Your task to perform on an android device: check android version Image 0: 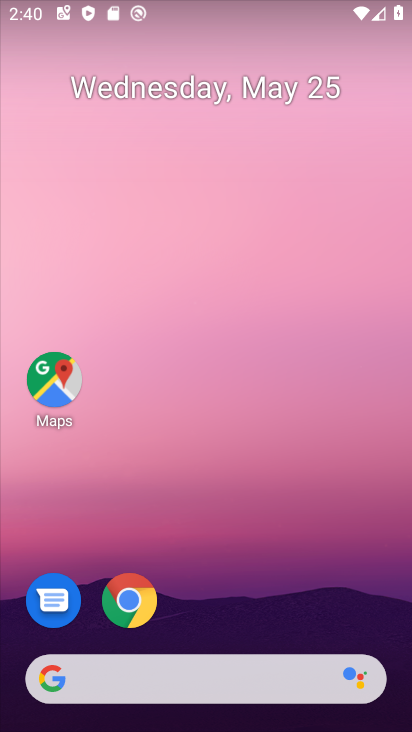
Step 0: press home button
Your task to perform on an android device: check android version Image 1: 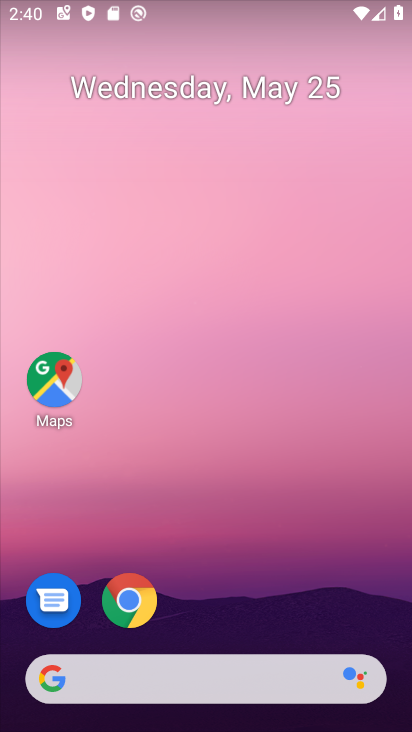
Step 1: drag from (26, 531) to (202, 107)
Your task to perform on an android device: check android version Image 2: 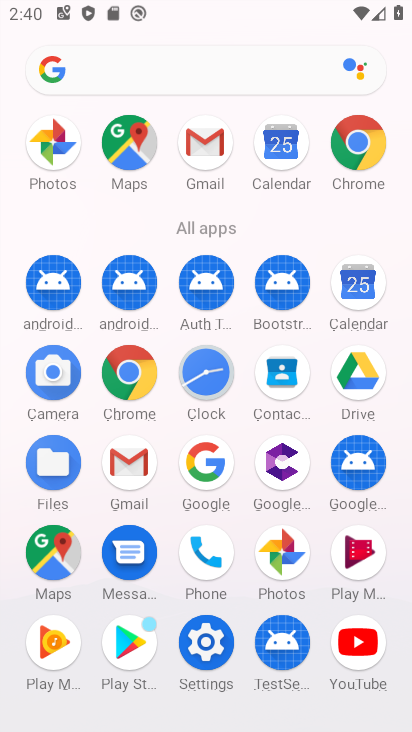
Step 2: click (205, 636)
Your task to perform on an android device: check android version Image 3: 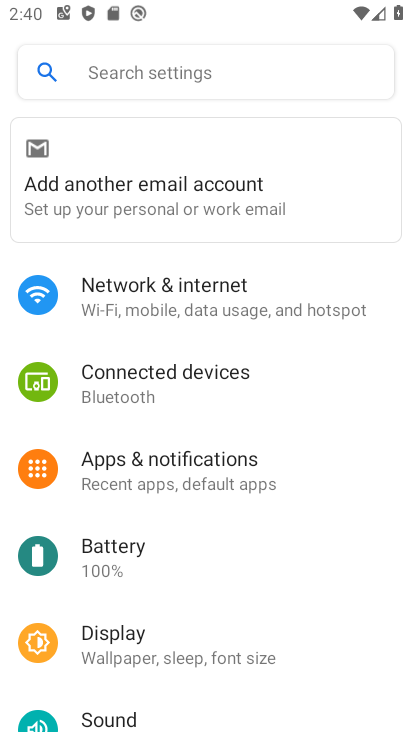
Step 3: drag from (3, 604) to (199, 96)
Your task to perform on an android device: check android version Image 4: 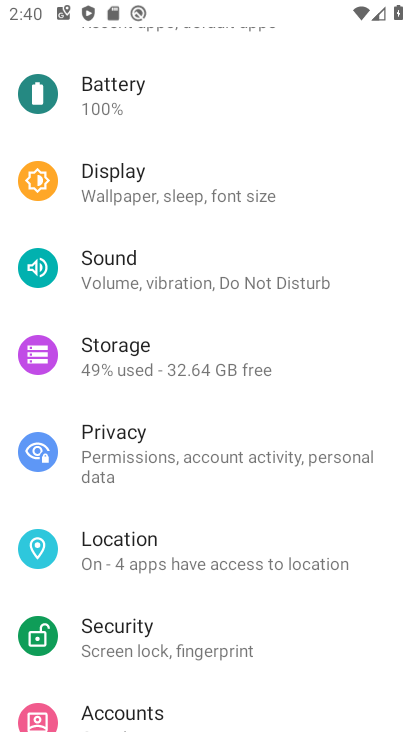
Step 4: drag from (34, 561) to (211, 195)
Your task to perform on an android device: check android version Image 5: 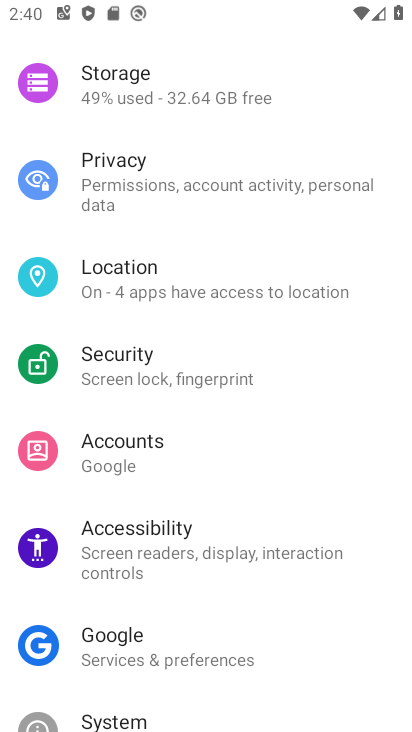
Step 5: drag from (4, 690) to (214, 180)
Your task to perform on an android device: check android version Image 6: 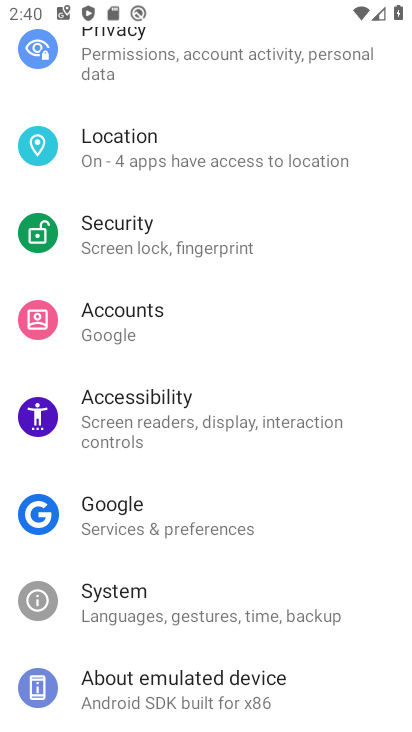
Step 6: click (89, 623)
Your task to perform on an android device: check android version Image 7: 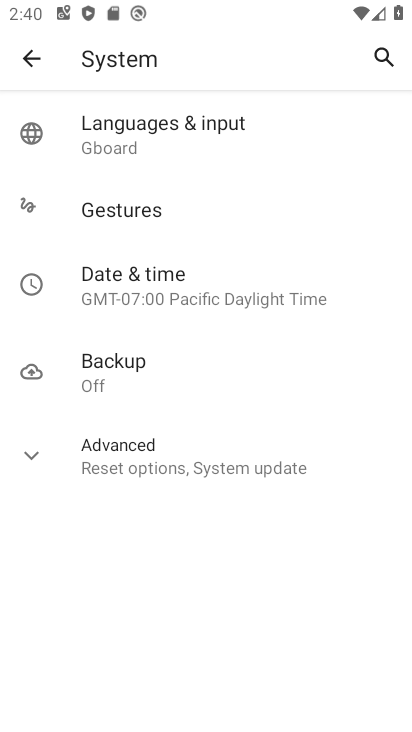
Step 7: click (159, 463)
Your task to perform on an android device: check android version Image 8: 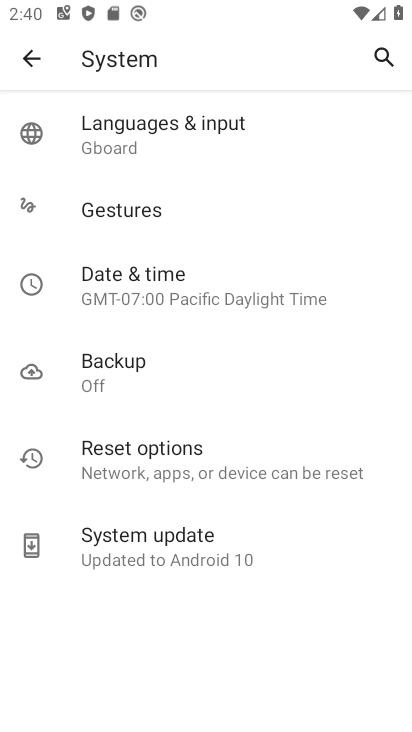
Step 8: click (126, 537)
Your task to perform on an android device: check android version Image 9: 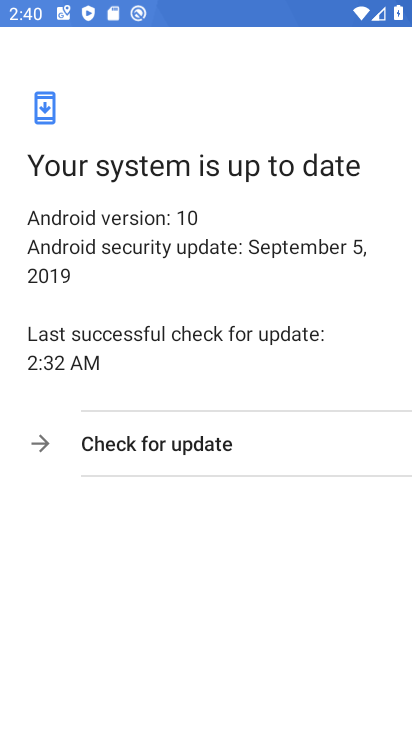
Step 9: task complete